Your task to perform on an android device: Go to Maps Image 0: 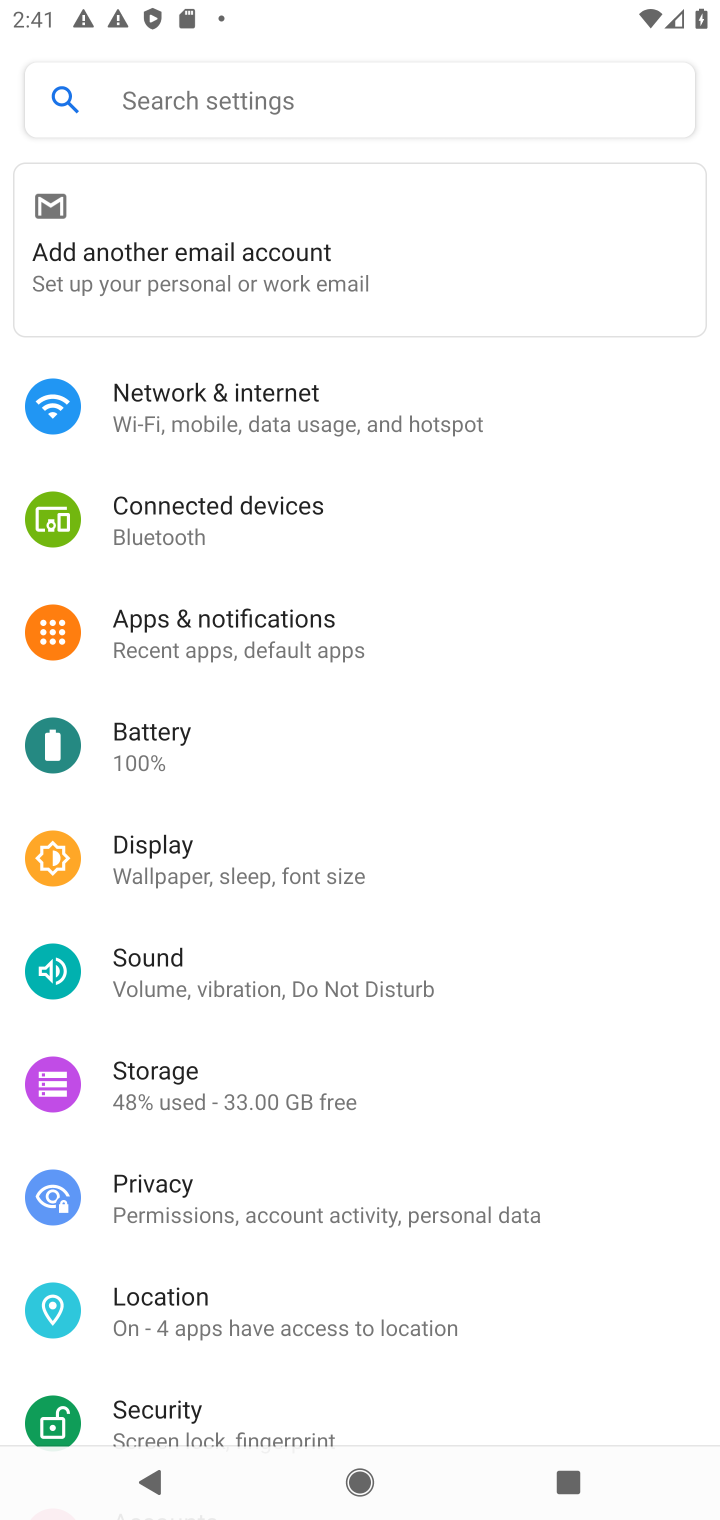
Step 0: press home button
Your task to perform on an android device: Go to Maps Image 1: 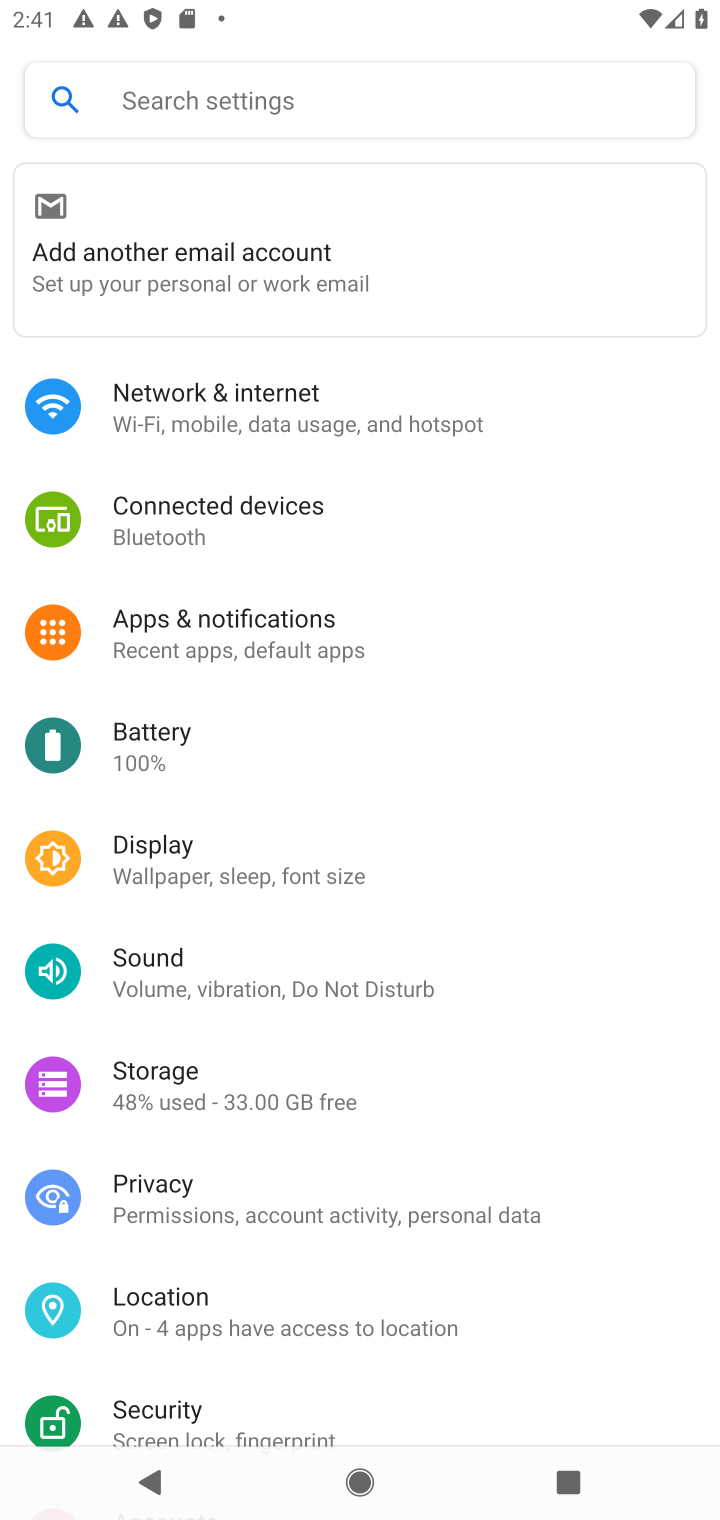
Step 1: press home button
Your task to perform on an android device: Go to Maps Image 2: 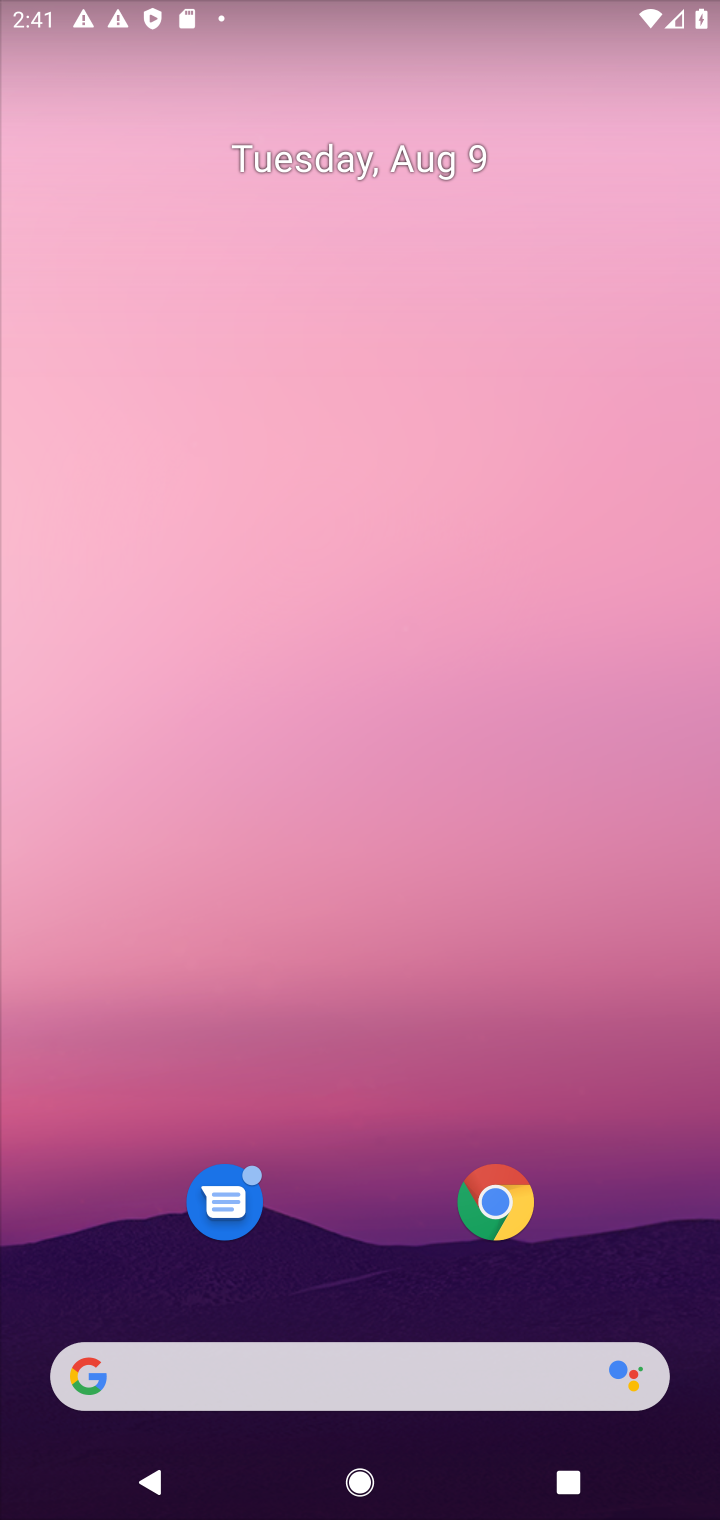
Step 2: press home button
Your task to perform on an android device: Go to Maps Image 3: 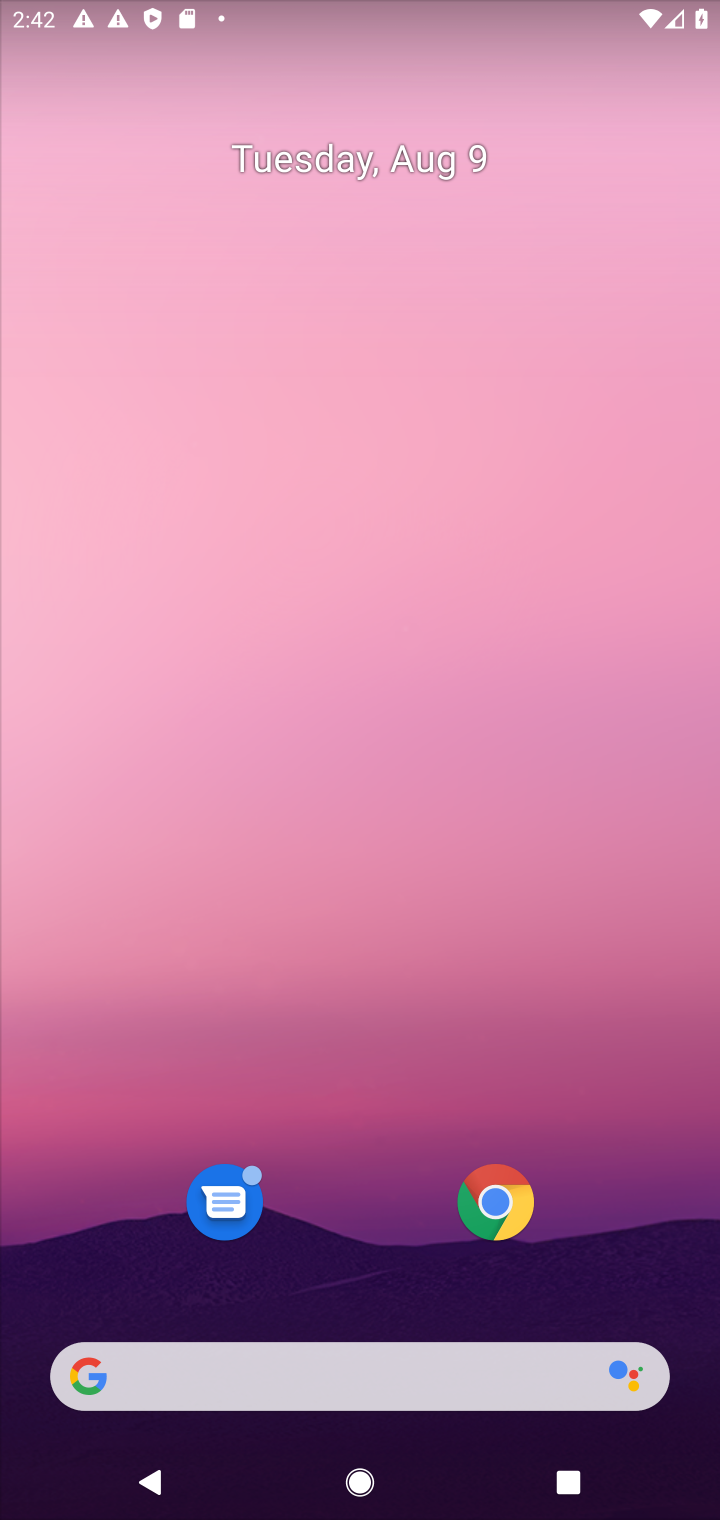
Step 3: drag from (376, 1289) to (464, 62)
Your task to perform on an android device: Go to Maps Image 4: 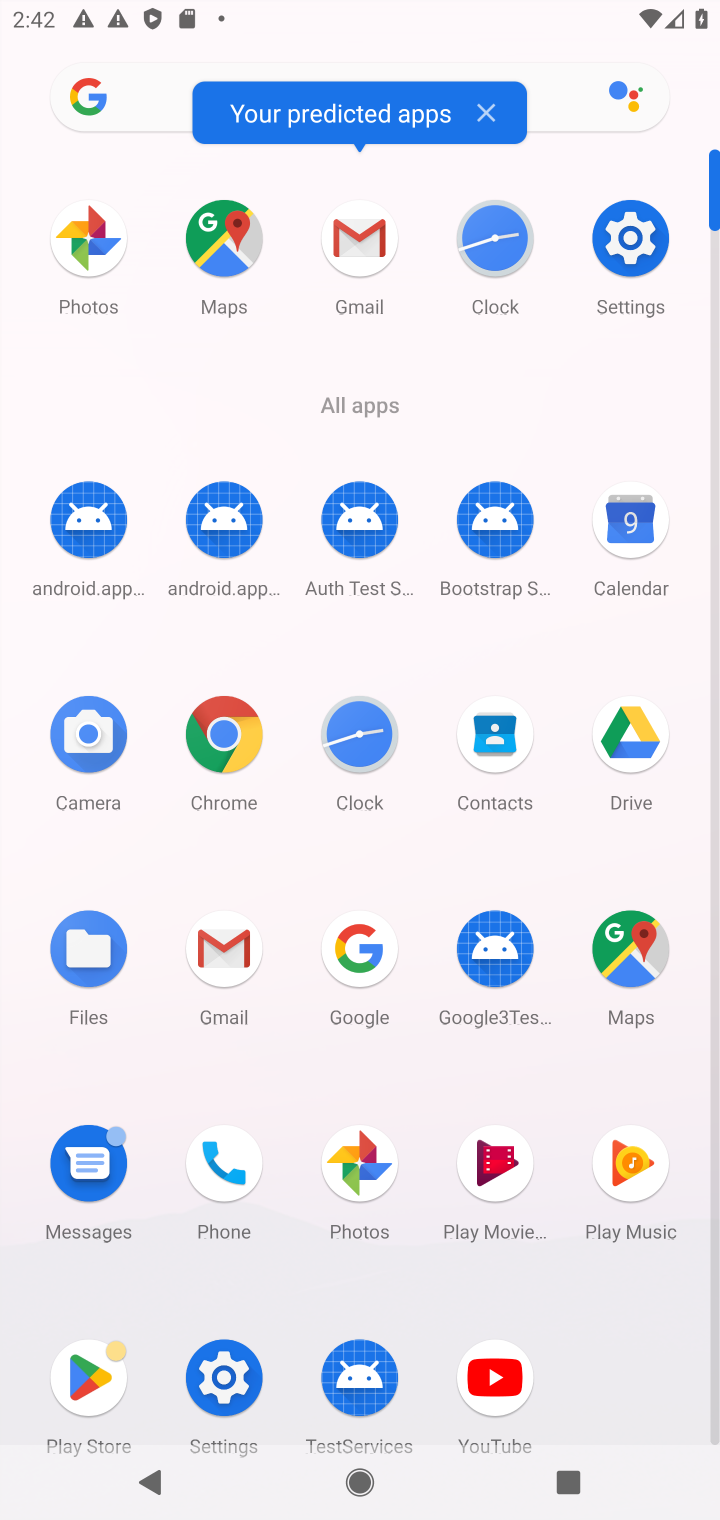
Step 4: click (621, 985)
Your task to perform on an android device: Go to Maps Image 5: 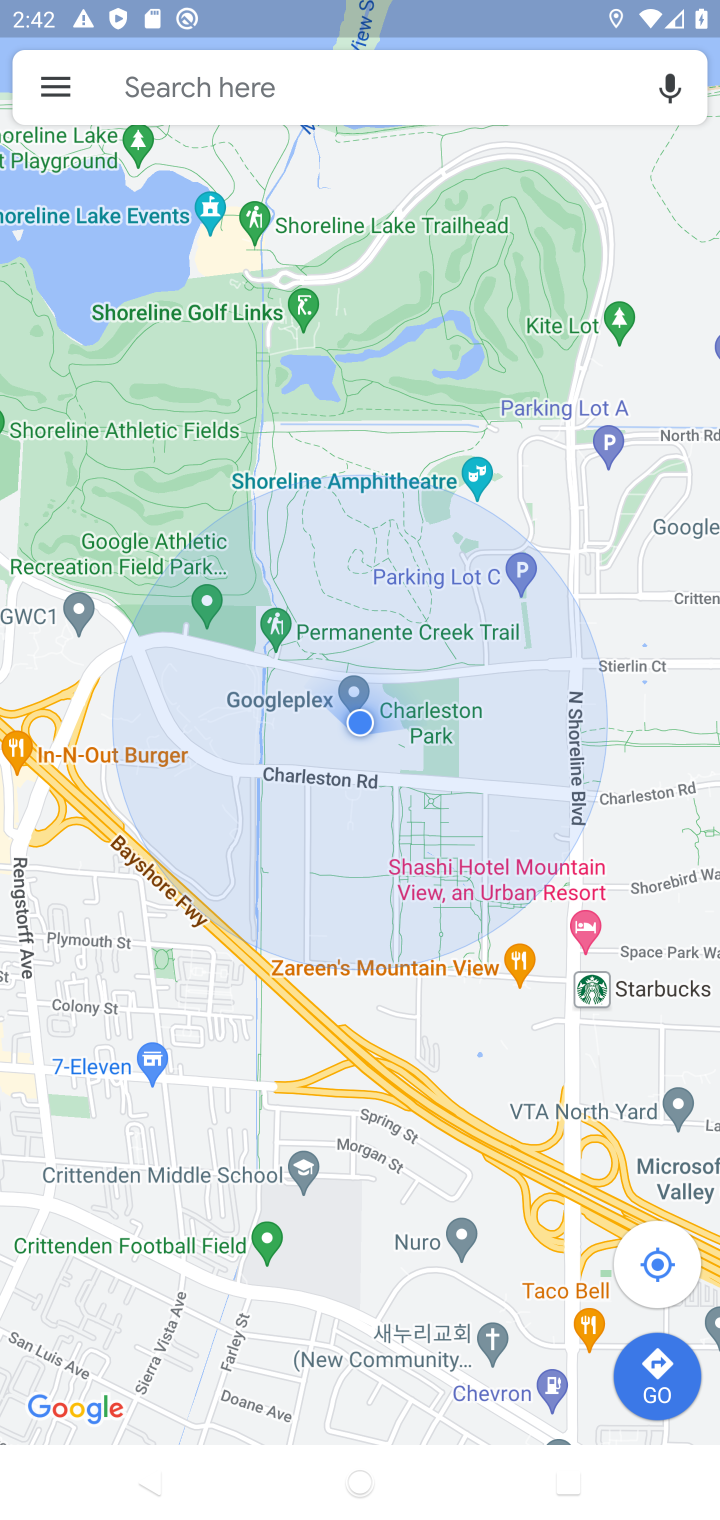
Step 5: task complete